Your task to perform on an android device: choose inbox layout in the gmail app Image 0: 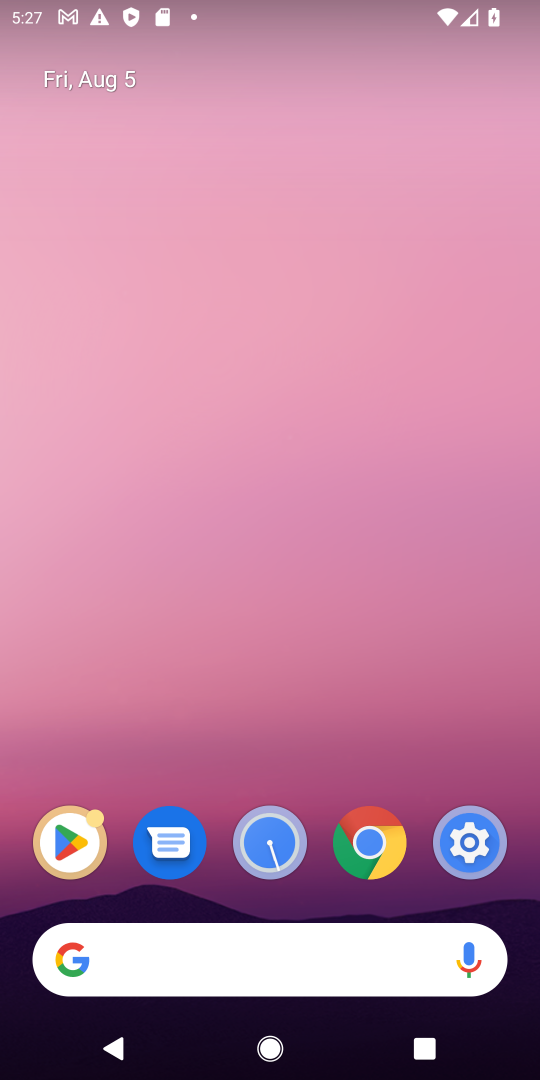
Step 0: drag from (81, 748) to (356, 220)
Your task to perform on an android device: choose inbox layout in the gmail app Image 1: 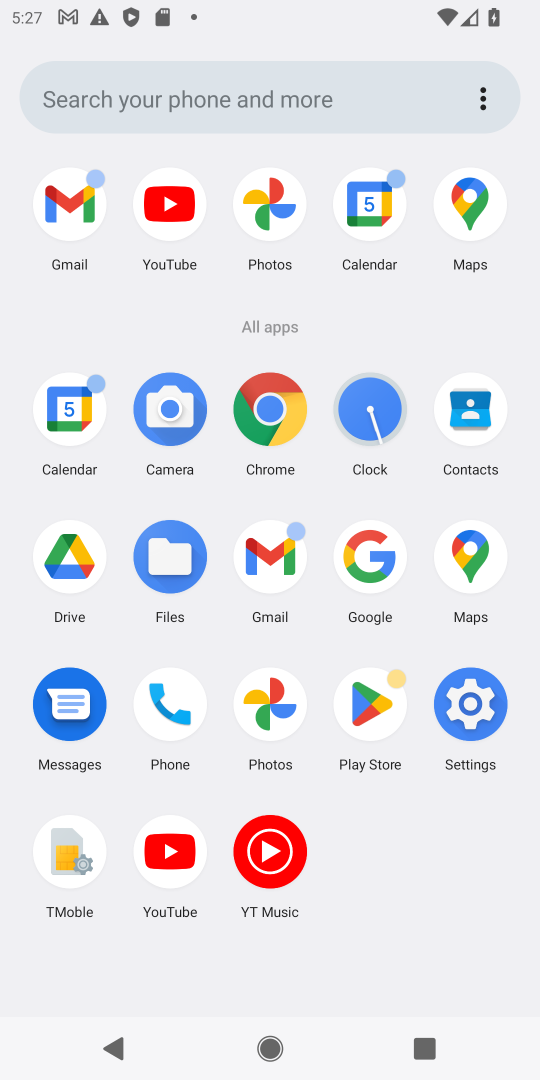
Step 1: click (55, 238)
Your task to perform on an android device: choose inbox layout in the gmail app Image 2: 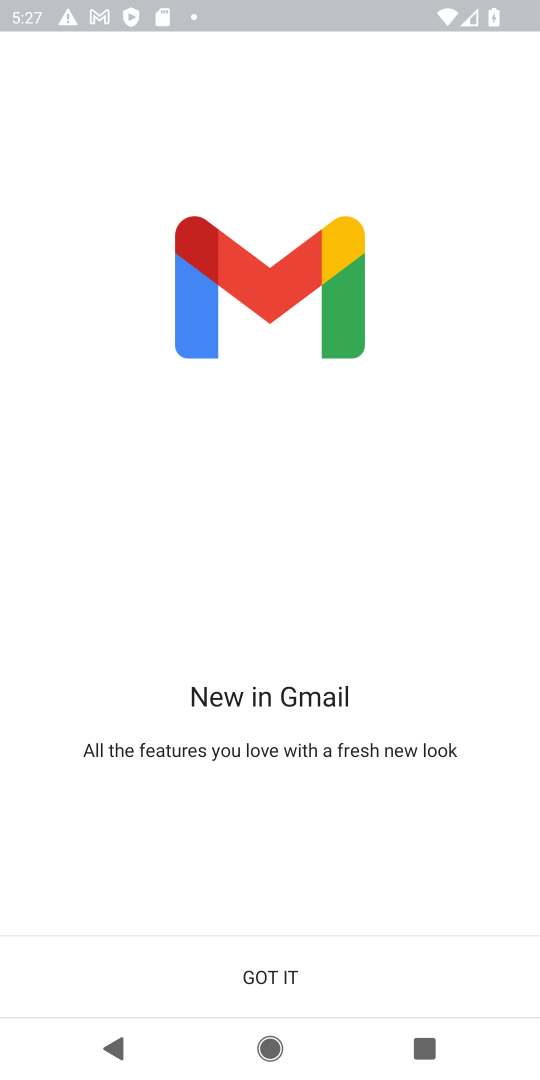
Step 2: click (236, 965)
Your task to perform on an android device: choose inbox layout in the gmail app Image 3: 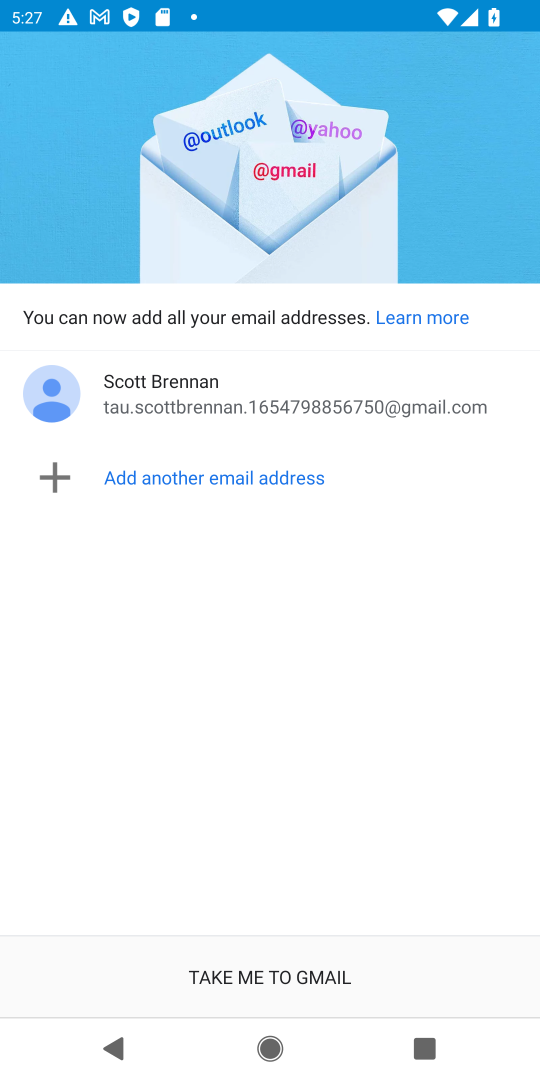
Step 3: click (260, 960)
Your task to perform on an android device: choose inbox layout in the gmail app Image 4: 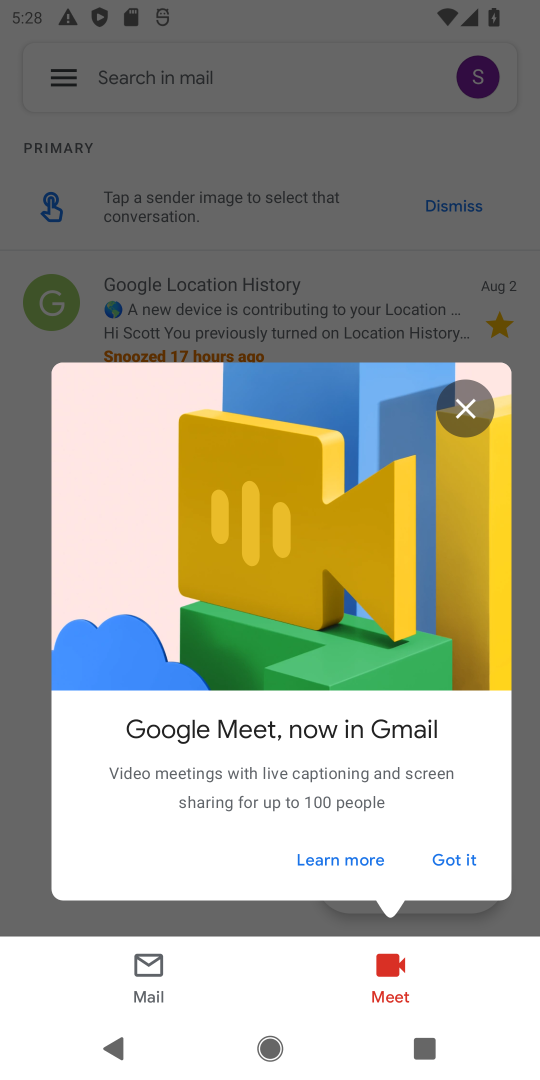
Step 4: click (458, 864)
Your task to perform on an android device: choose inbox layout in the gmail app Image 5: 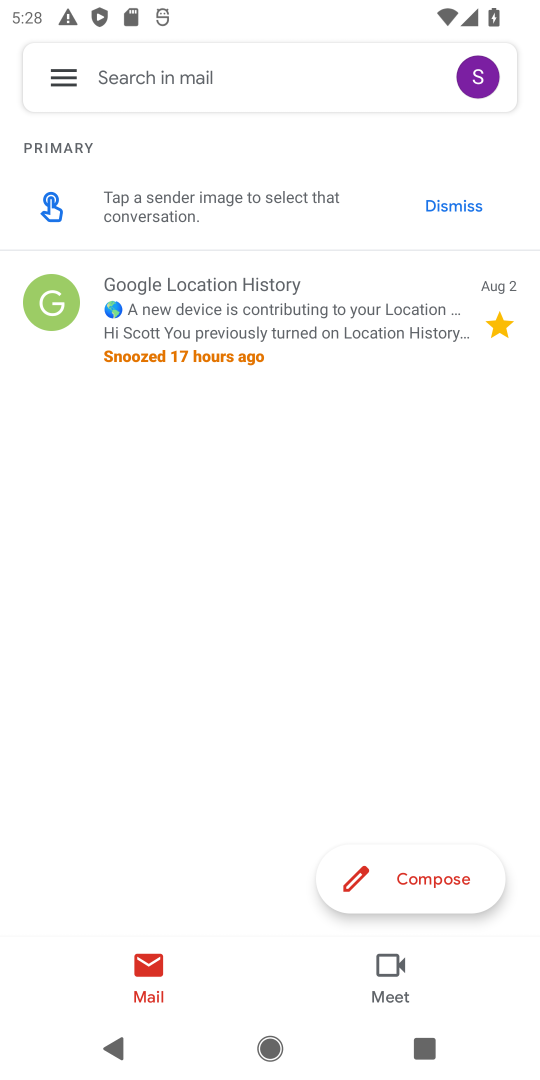
Step 5: click (61, 76)
Your task to perform on an android device: choose inbox layout in the gmail app Image 6: 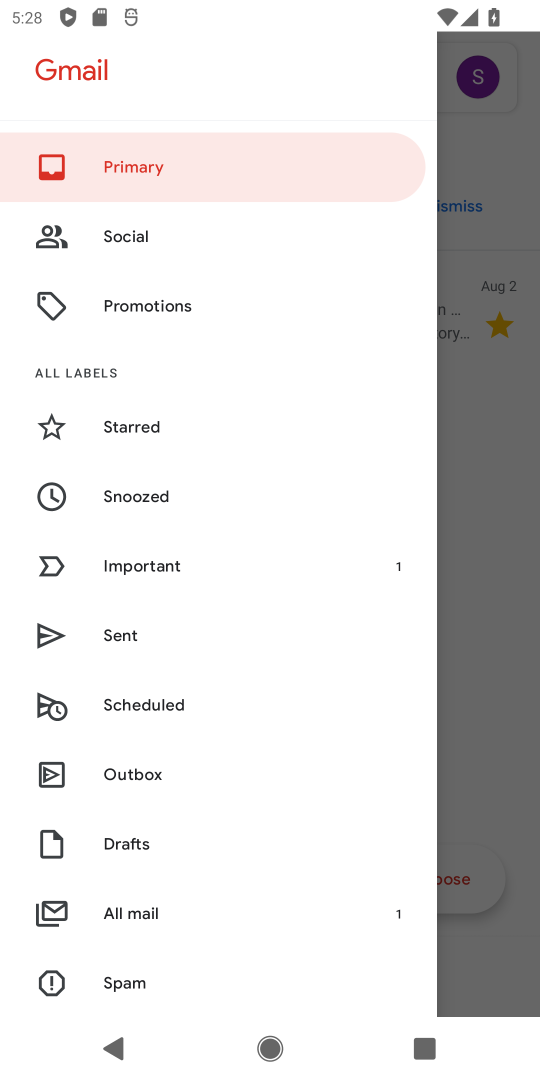
Step 6: task complete